Your task to perform on an android device: Open accessibility settings Image 0: 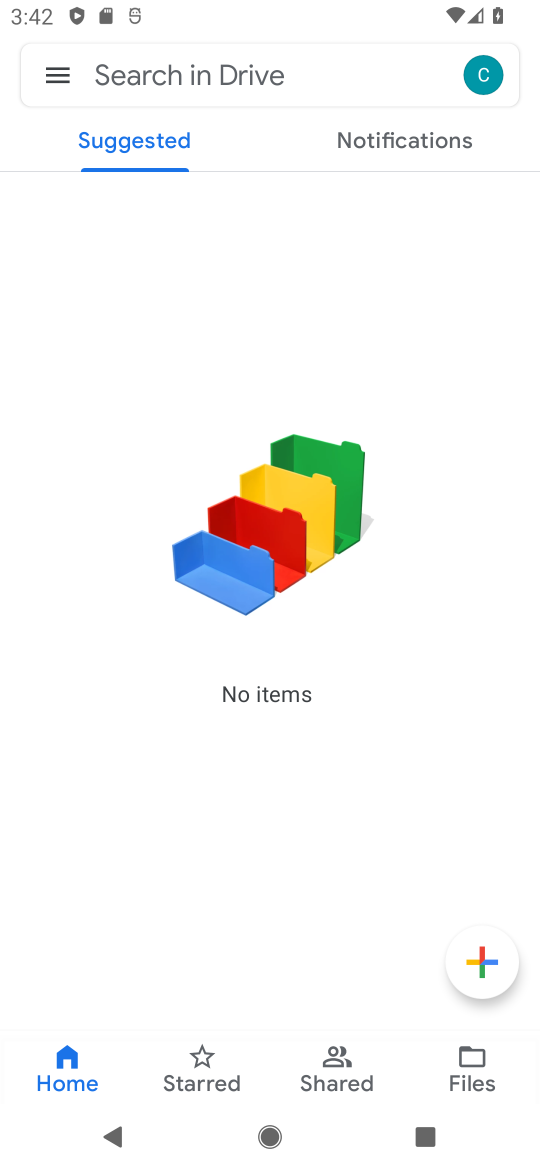
Step 0: press home button
Your task to perform on an android device: Open accessibility settings Image 1: 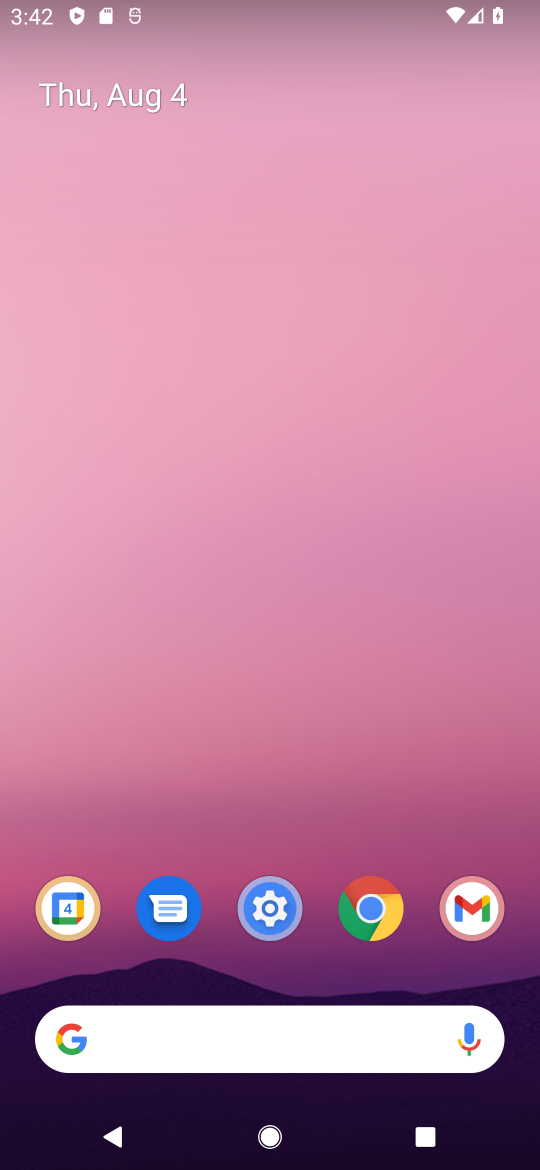
Step 1: click (279, 911)
Your task to perform on an android device: Open accessibility settings Image 2: 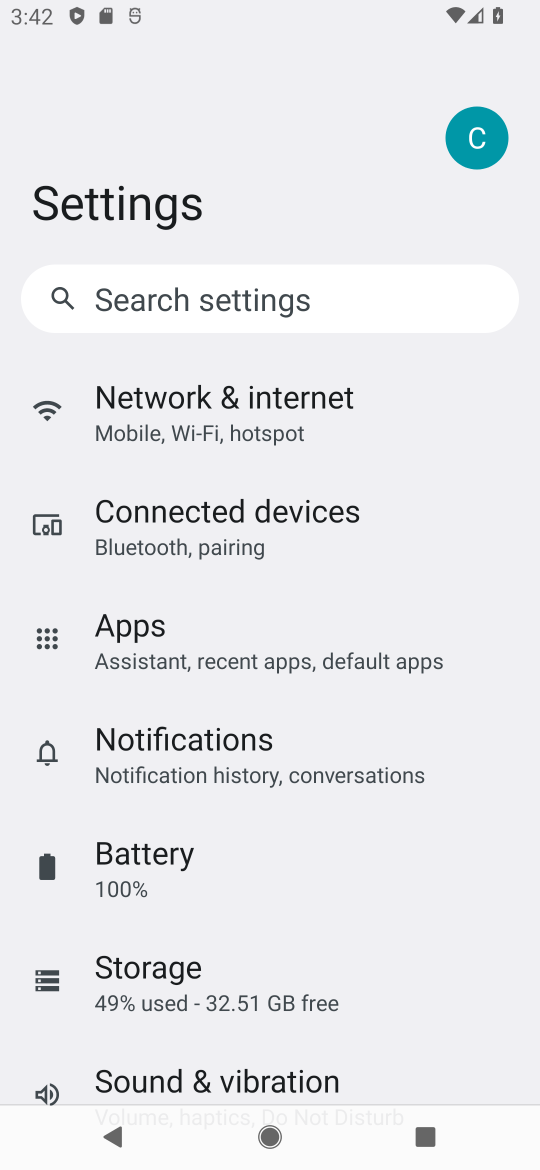
Step 2: drag from (236, 940) to (309, 429)
Your task to perform on an android device: Open accessibility settings Image 3: 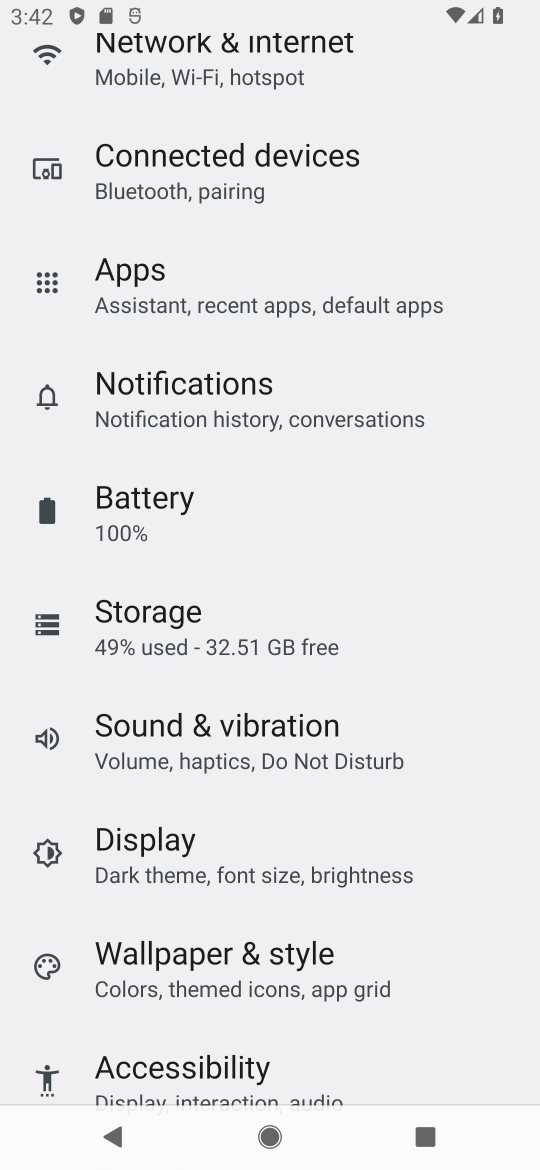
Step 3: click (288, 1073)
Your task to perform on an android device: Open accessibility settings Image 4: 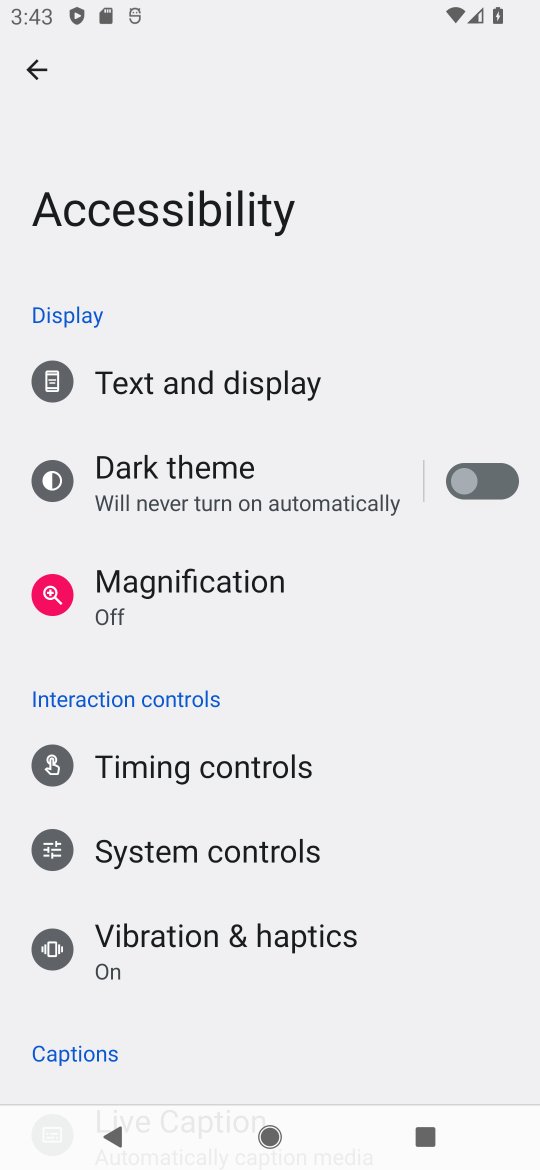
Step 4: task complete